Your task to perform on an android device: remove spam from my inbox in the gmail app Image 0: 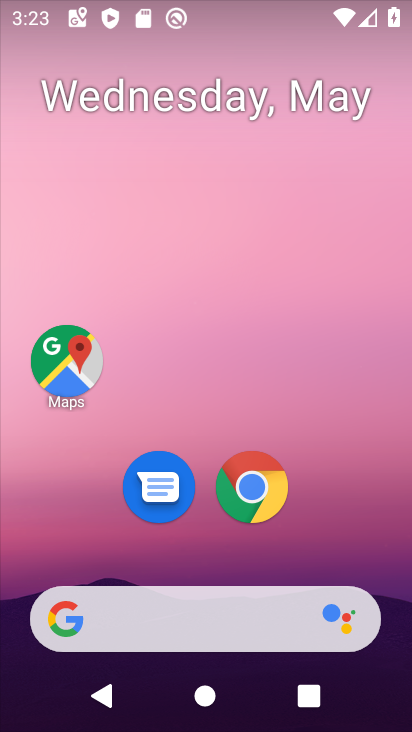
Step 0: drag from (332, 508) to (276, 28)
Your task to perform on an android device: remove spam from my inbox in the gmail app Image 1: 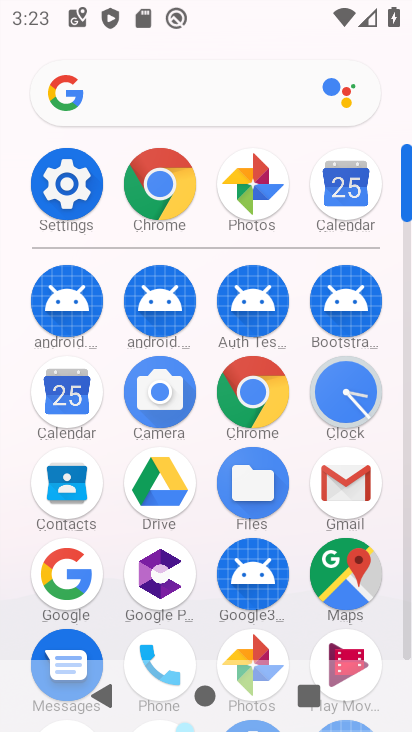
Step 1: drag from (18, 602) to (33, 265)
Your task to perform on an android device: remove spam from my inbox in the gmail app Image 2: 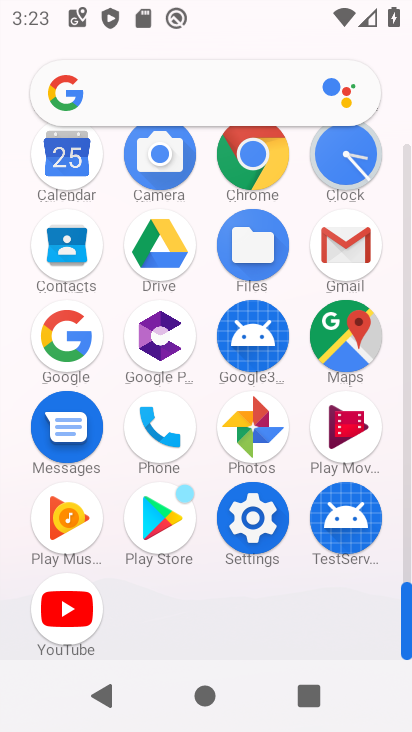
Step 2: click (346, 240)
Your task to perform on an android device: remove spam from my inbox in the gmail app Image 3: 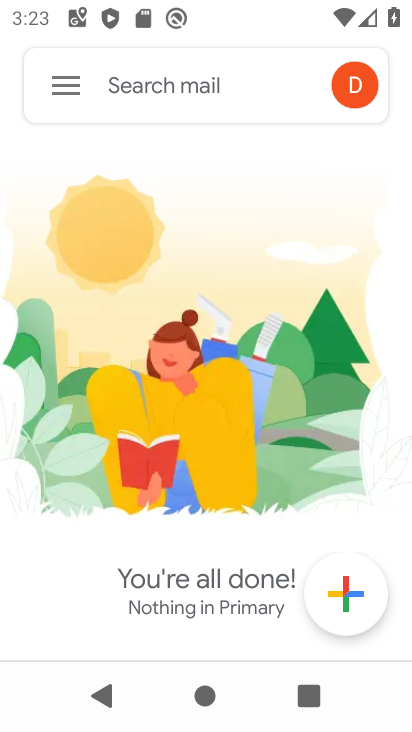
Step 3: click (53, 86)
Your task to perform on an android device: remove spam from my inbox in the gmail app Image 4: 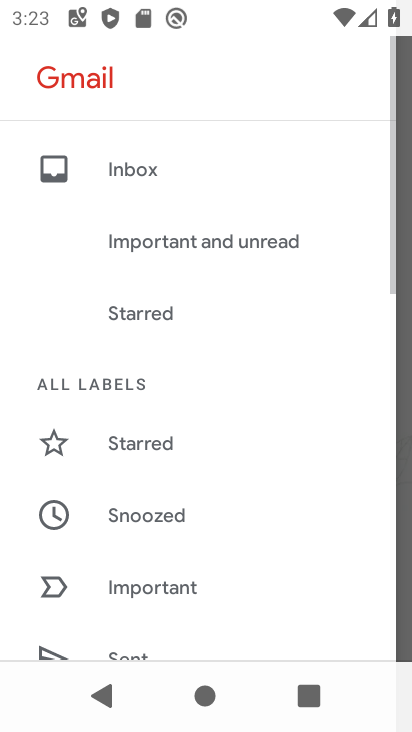
Step 4: drag from (241, 507) to (260, 136)
Your task to perform on an android device: remove spam from my inbox in the gmail app Image 5: 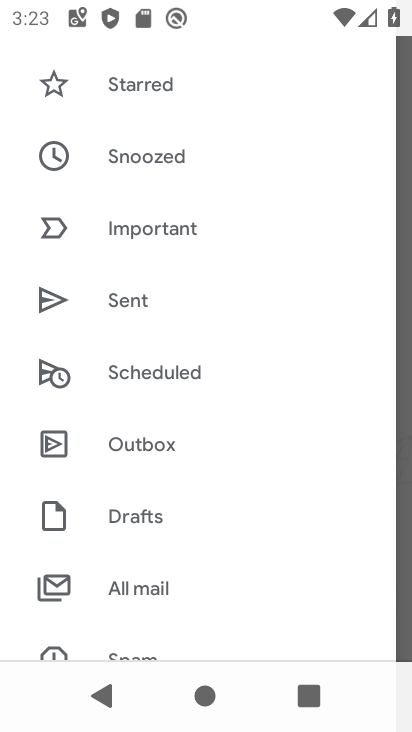
Step 5: drag from (176, 558) to (223, 194)
Your task to perform on an android device: remove spam from my inbox in the gmail app Image 6: 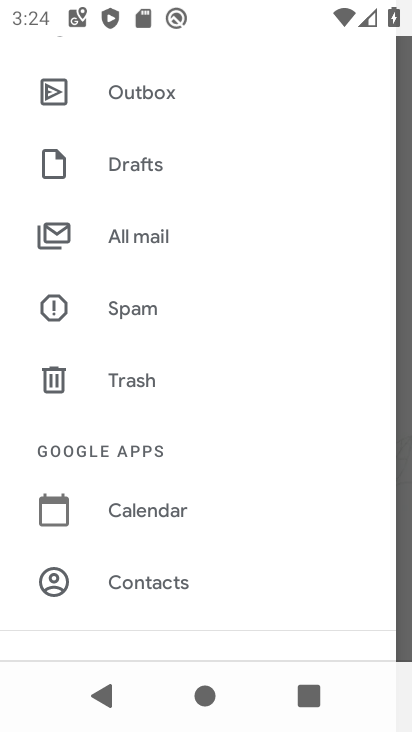
Step 6: click (146, 305)
Your task to perform on an android device: remove spam from my inbox in the gmail app Image 7: 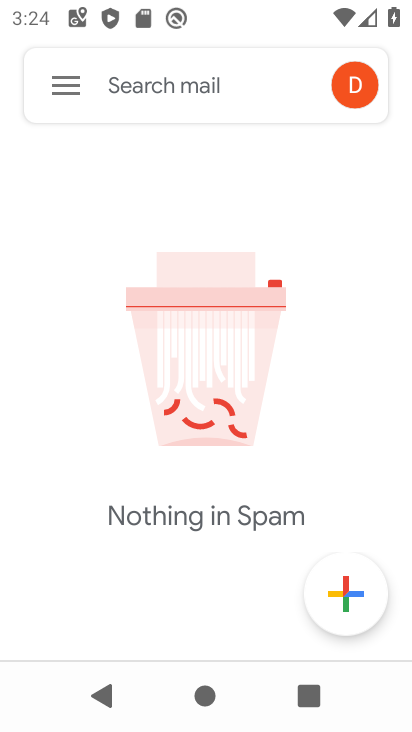
Step 7: task complete